Your task to perform on an android device: toggle notifications settings in the gmail app Image 0: 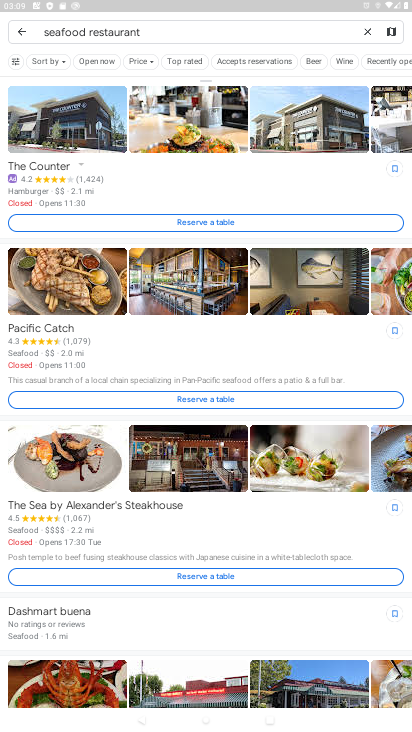
Step 0: press home button
Your task to perform on an android device: toggle notifications settings in the gmail app Image 1: 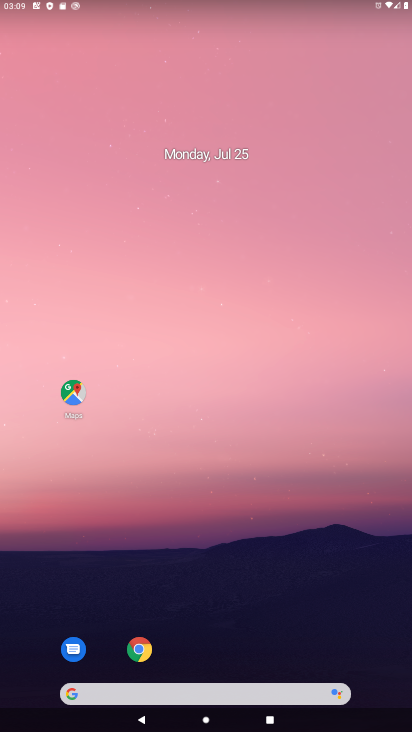
Step 1: drag from (391, 672) to (358, 197)
Your task to perform on an android device: toggle notifications settings in the gmail app Image 2: 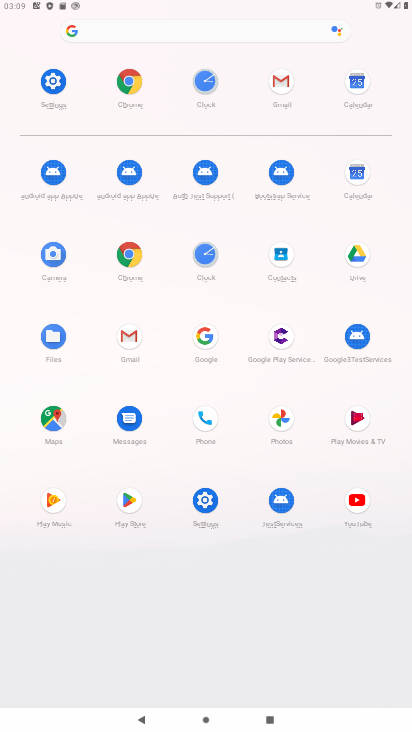
Step 2: click (127, 337)
Your task to perform on an android device: toggle notifications settings in the gmail app Image 3: 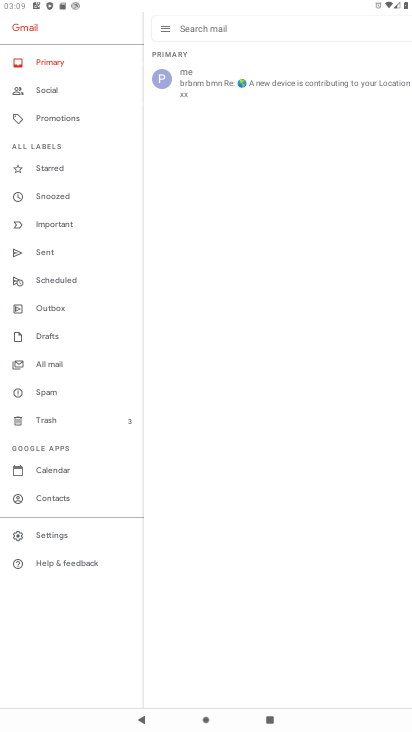
Step 3: click (43, 524)
Your task to perform on an android device: toggle notifications settings in the gmail app Image 4: 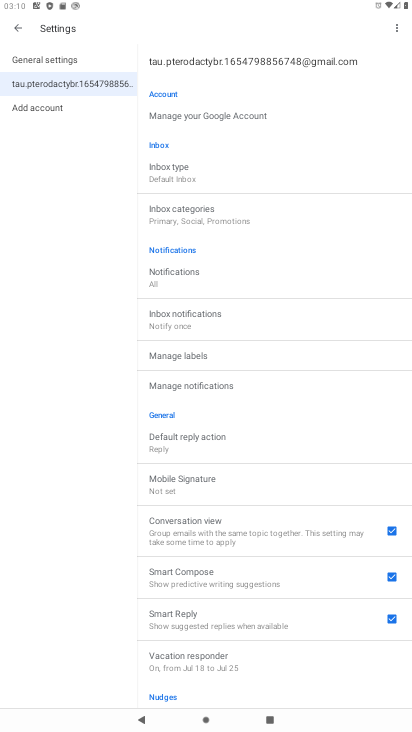
Step 4: click (190, 387)
Your task to perform on an android device: toggle notifications settings in the gmail app Image 5: 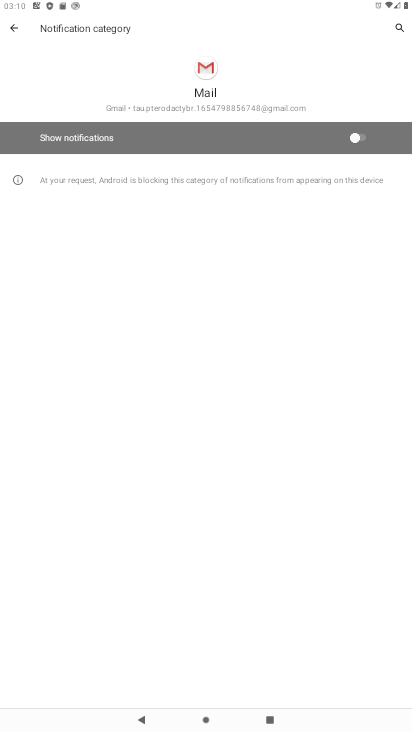
Step 5: click (363, 142)
Your task to perform on an android device: toggle notifications settings in the gmail app Image 6: 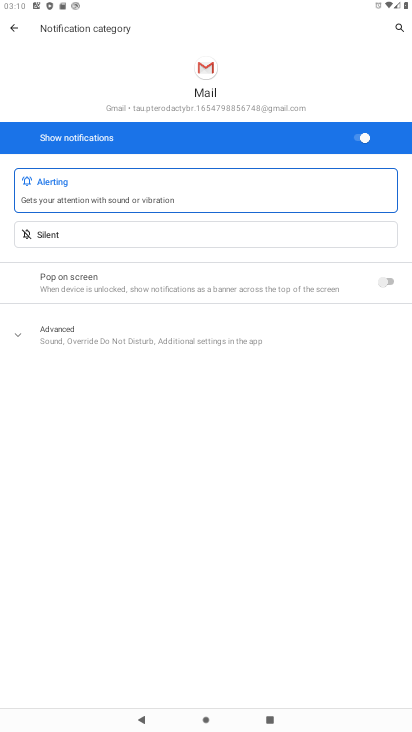
Step 6: task complete